Your task to perform on an android device: Clear all items from cart on walmart.com. Search for usb-c on walmart.com, select the first entry, add it to the cart, then select checkout. Image 0: 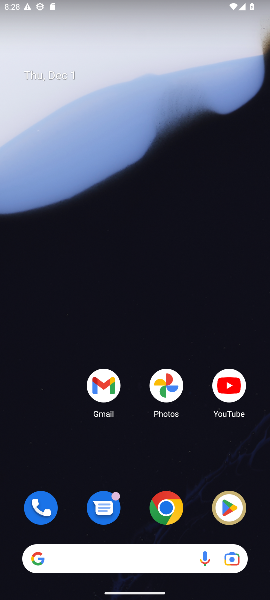
Step 0: click (162, 510)
Your task to perform on an android device: Clear all items from cart on walmart.com. Search for usb-c on walmart.com, select the first entry, add it to the cart, then select checkout. Image 1: 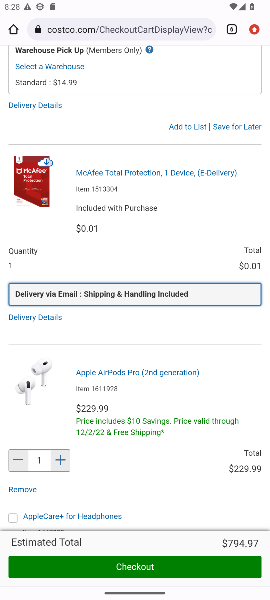
Step 1: click (227, 28)
Your task to perform on an android device: Clear all items from cart on walmart.com. Search for usb-c on walmart.com, select the first entry, add it to the cart, then select checkout. Image 2: 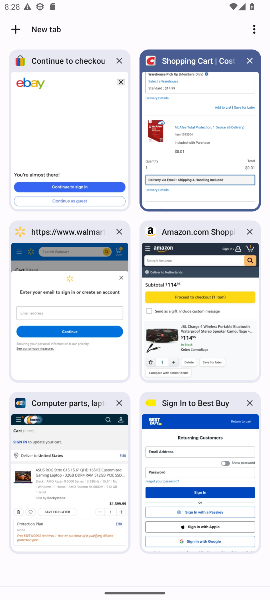
Step 2: click (65, 291)
Your task to perform on an android device: Clear all items from cart on walmart.com. Search for usb-c on walmart.com, select the first entry, add it to the cart, then select checkout. Image 3: 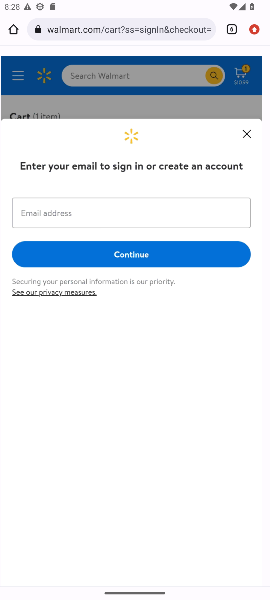
Step 3: click (244, 132)
Your task to perform on an android device: Clear all items from cart on walmart.com. Search for usb-c on walmart.com, select the first entry, add it to the cart, then select checkout. Image 4: 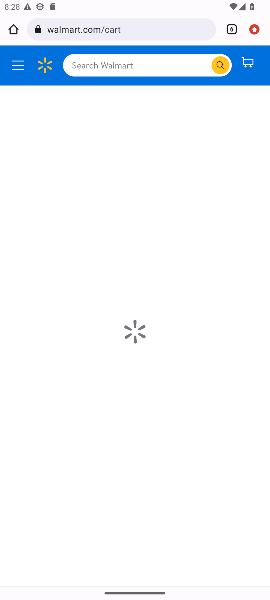
Step 4: click (247, 65)
Your task to perform on an android device: Clear all items from cart on walmart.com. Search for usb-c on walmart.com, select the first entry, add it to the cart, then select checkout. Image 5: 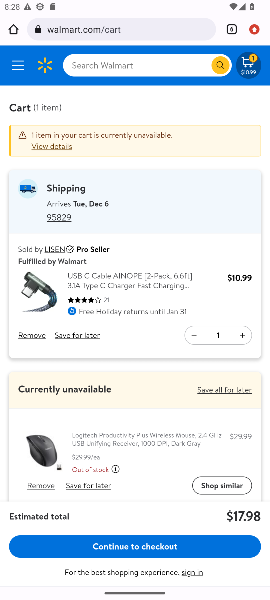
Step 5: click (22, 336)
Your task to perform on an android device: Clear all items from cart on walmart.com. Search for usb-c on walmart.com, select the first entry, add it to the cart, then select checkout. Image 6: 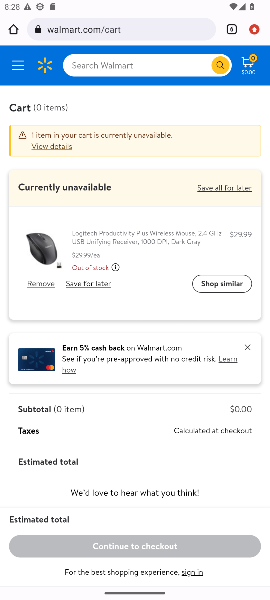
Step 6: click (39, 286)
Your task to perform on an android device: Clear all items from cart on walmart.com. Search for usb-c on walmart.com, select the first entry, add it to the cart, then select checkout. Image 7: 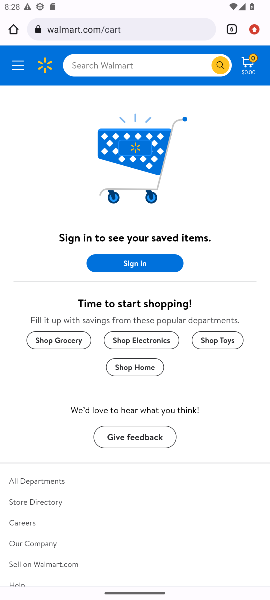
Step 7: click (100, 71)
Your task to perform on an android device: Clear all items from cart on walmart.com. Search for usb-c on walmart.com, select the first entry, add it to the cart, then select checkout. Image 8: 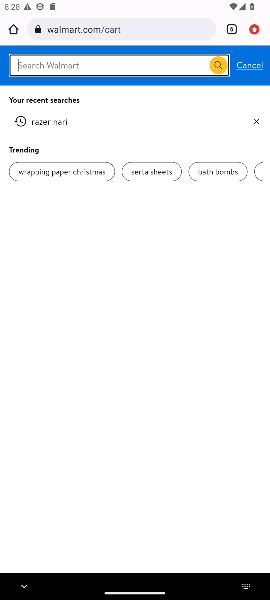
Step 8: type "usb-c"
Your task to perform on an android device: Clear all items from cart on walmart.com. Search for usb-c on walmart.com, select the first entry, add it to the cart, then select checkout. Image 9: 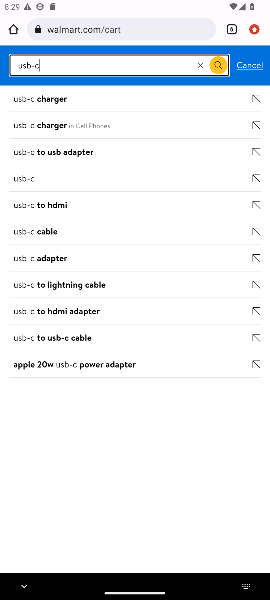
Step 9: click (220, 68)
Your task to perform on an android device: Clear all items from cart on walmart.com. Search for usb-c on walmart.com, select the first entry, add it to the cart, then select checkout. Image 10: 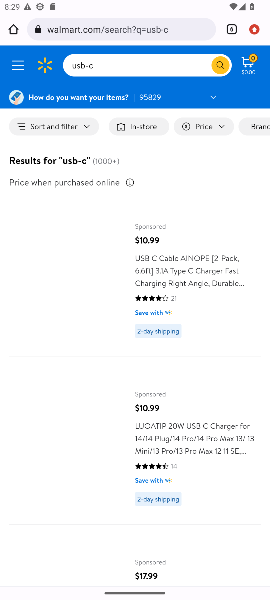
Step 10: click (160, 278)
Your task to perform on an android device: Clear all items from cart on walmart.com. Search for usb-c on walmart.com, select the first entry, add it to the cart, then select checkout. Image 11: 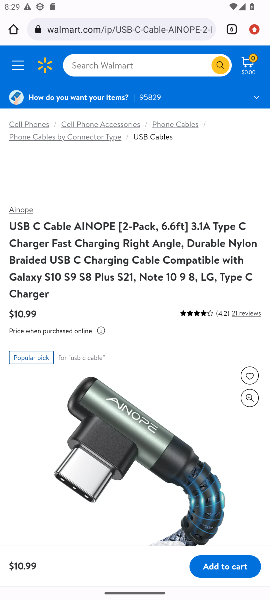
Step 11: click (222, 569)
Your task to perform on an android device: Clear all items from cart on walmart.com. Search for usb-c on walmart.com, select the first entry, add it to the cart, then select checkout. Image 12: 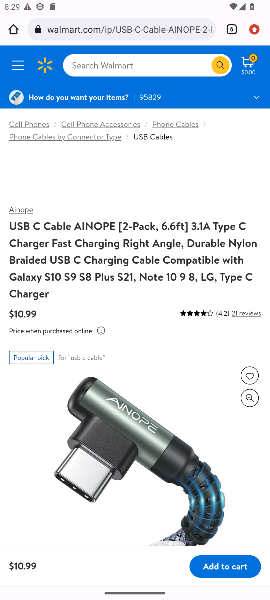
Step 12: click (222, 569)
Your task to perform on an android device: Clear all items from cart on walmart.com. Search for usb-c on walmart.com, select the first entry, add it to the cart, then select checkout. Image 13: 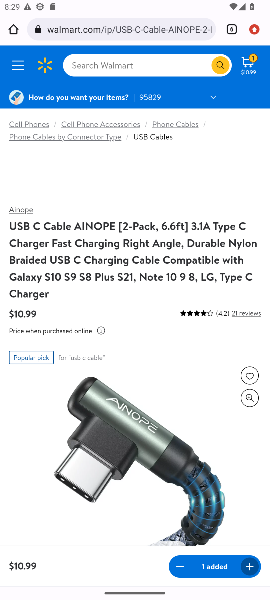
Step 13: click (249, 65)
Your task to perform on an android device: Clear all items from cart on walmart.com. Search for usb-c on walmart.com, select the first entry, add it to the cart, then select checkout. Image 14: 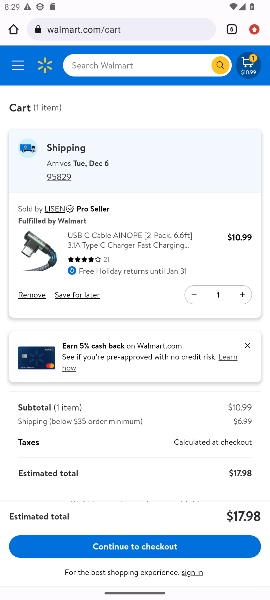
Step 14: click (127, 546)
Your task to perform on an android device: Clear all items from cart on walmart.com. Search for usb-c on walmart.com, select the first entry, add it to the cart, then select checkout. Image 15: 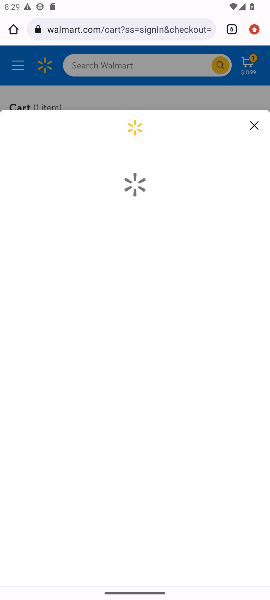
Step 15: task complete